Your task to perform on an android device: Open wifi settings Image 0: 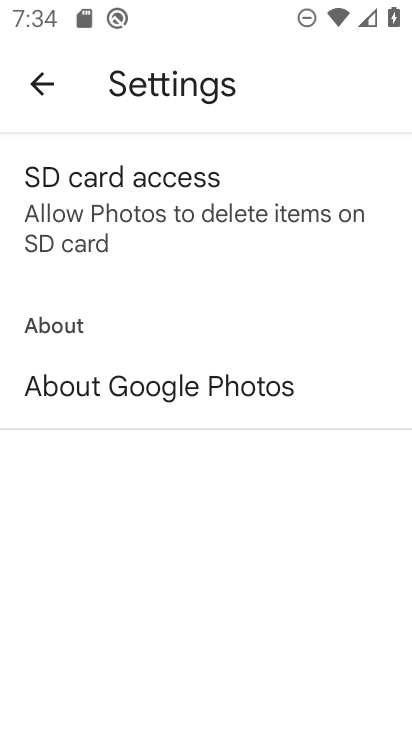
Step 0: press home button
Your task to perform on an android device: Open wifi settings Image 1: 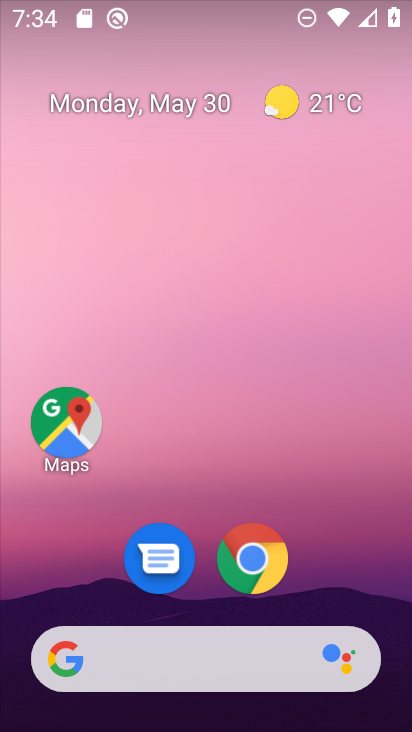
Step 1: drag from (335, 523) to (208, 94)
Your task to perform on an android device: Open wifi settings Image 2: 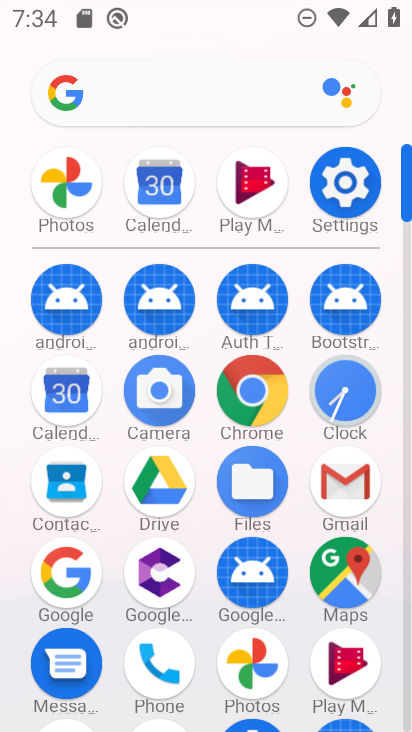
Step 2: click (346, 174)
Your task to perform on an android device: Open wifi settings Image 3: 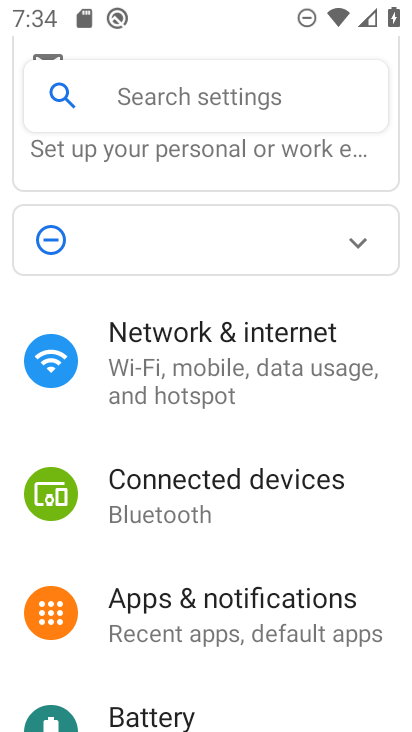
Step 3: click (175, 330)
Your task to perform on an android device: Open wifi settings Image 4: 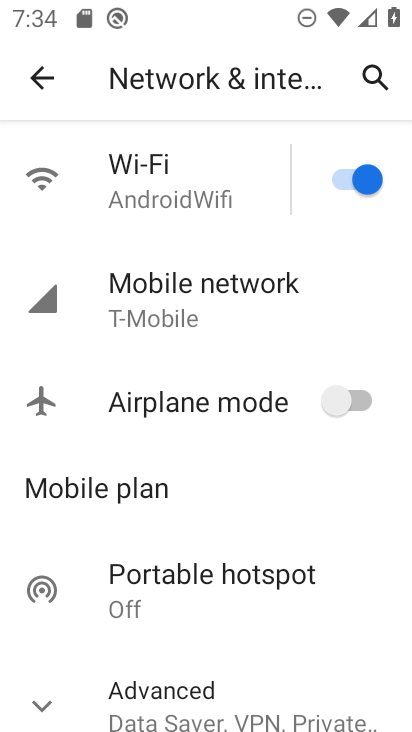
Step 4: click (172, 172)
Your task to perform on an android device: Open wifi settings Image 5: 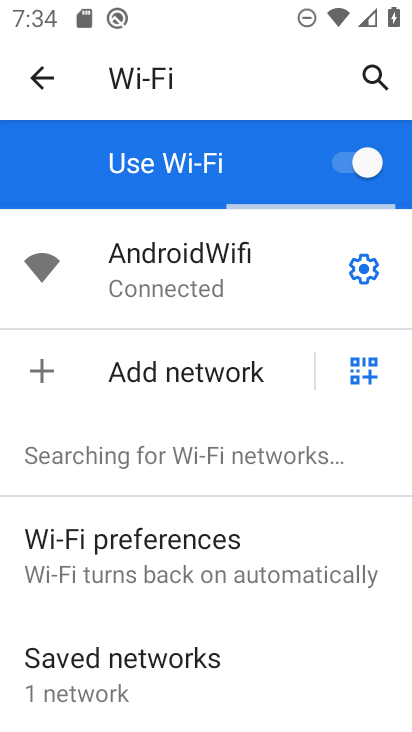
Step 5: task complete